Your task to perform on an android device: turn off location history Image 0: 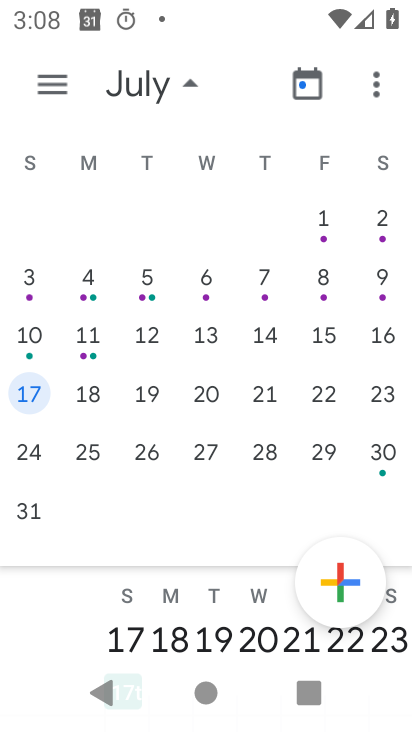
Step 0: press home button
Your task to perform on an android device: turn off location history Image 1: 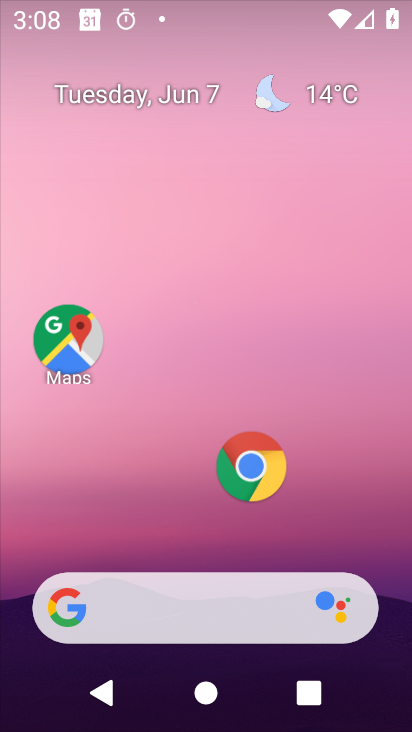
Step 1: drag from (147, 727) to (173, 95)
Your task to perform on an android device: turn off location history Image 2: 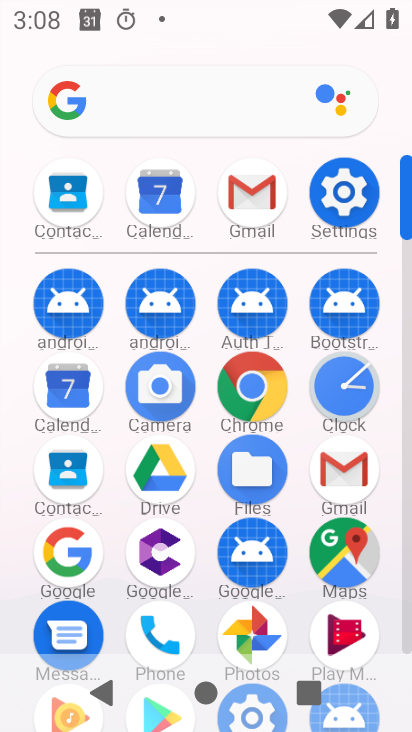
Step 2: click (356, 223)
Your task to perform on an android device: turn off location history Image 3: 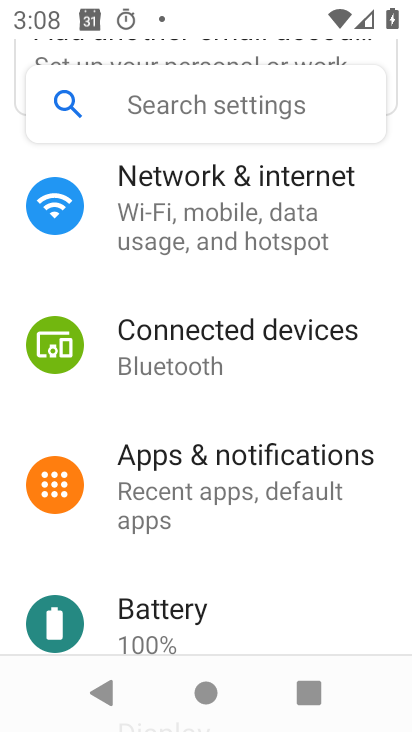
Step 3: drag from (236, 578) to (294, 157)
Your task to perform on an android device: turn off location history Image 4: 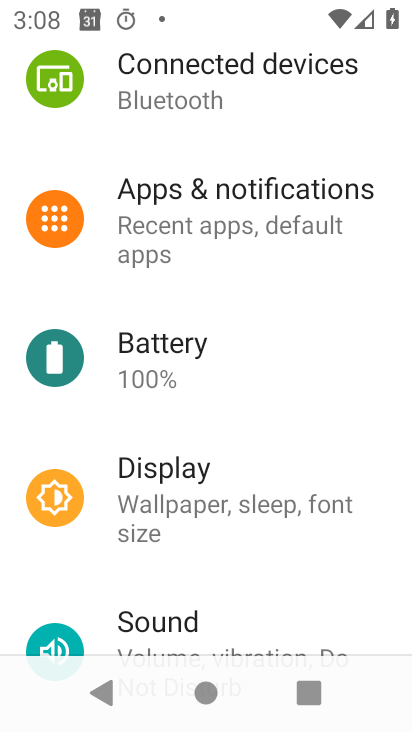
Step 4: drag from (258, 583) to (326, 146)
Your task to perform on an android device: turn off location history Image 5: 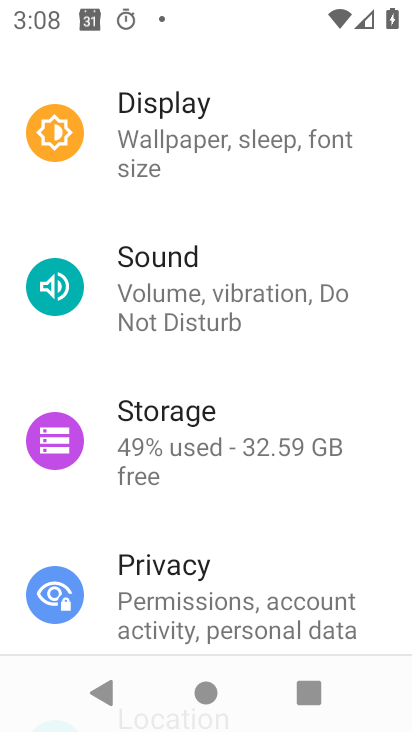
Step 5: drag from (277, 541) to (274, 154)
Your task to perform on an android device: turn off location history Image 6: 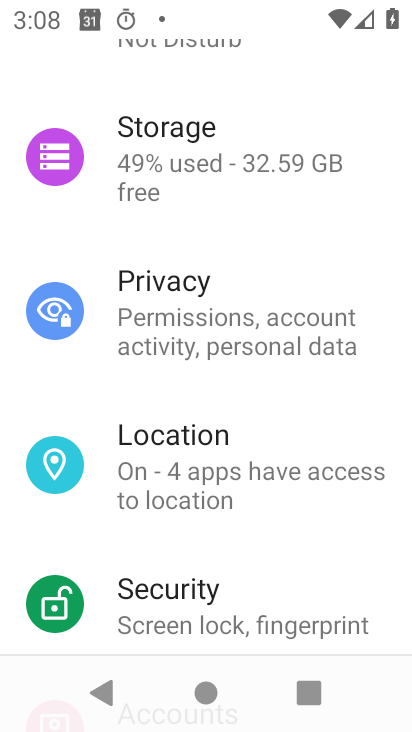
Step 6: click (190, 495)
Your task to perform on an android device: turn off location history Image 7: 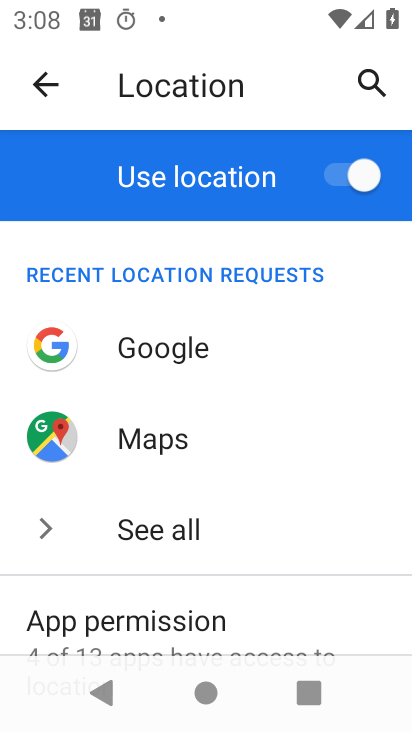
Step 7: drag from (300, 551) to (317, 184)
Your task to perform on an android device: turn off location history Image 8: 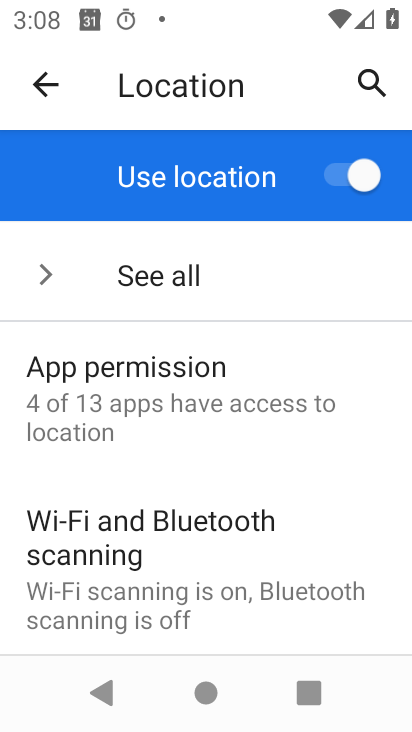
Step 8: drag from (207, 539) to (193, 297)
Your task to perform on an android device: turn off location history Image 9: 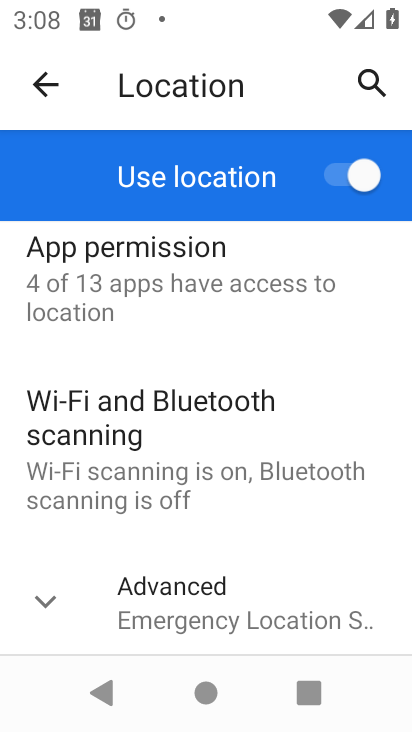
Step 9: click (235, 626)
Your task to perform on an android device: turn off location history Image 10: 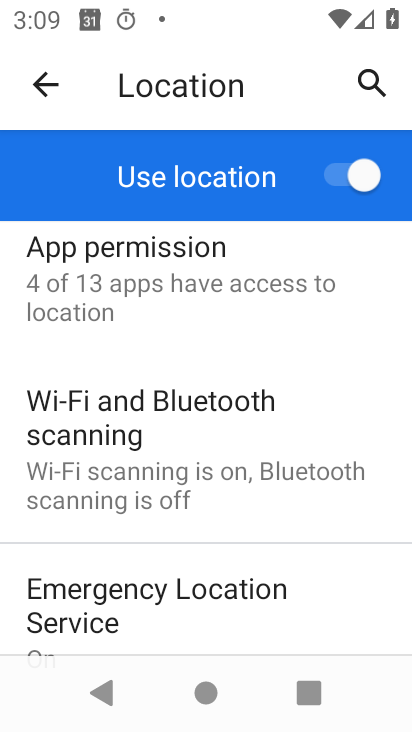
Step 10: drag from (290, 593) to (291, 254)
Your task to perform on an android device: turn off location history Image 11: 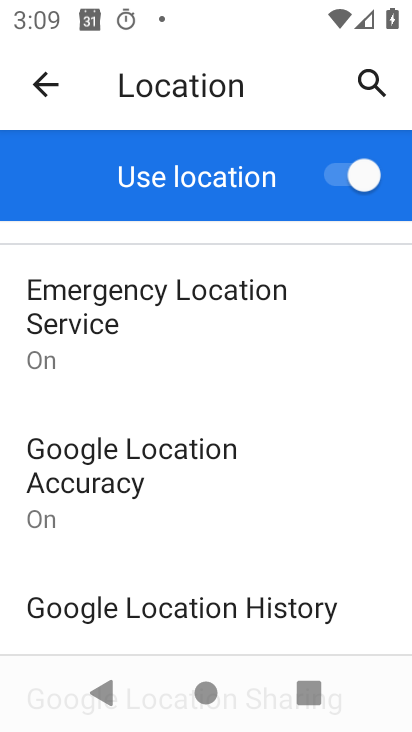
Step 11: drag from (292, 505) to (294, 235)
Your task to perform on an android device: turn off location history Image 12: 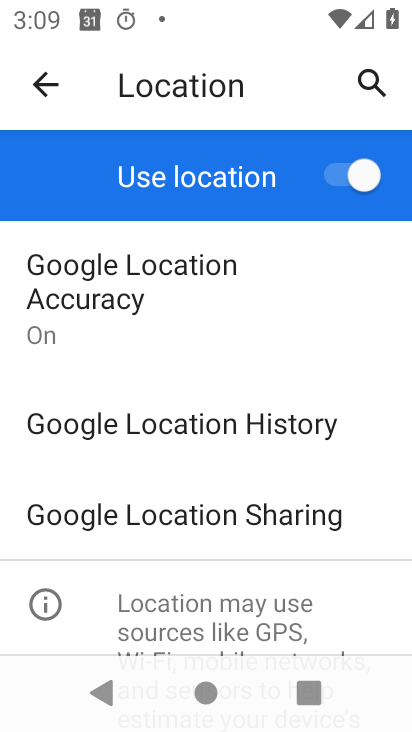
Step 12: click (172, 432)
Your task to perform on an android device: turn off location history Image 13: 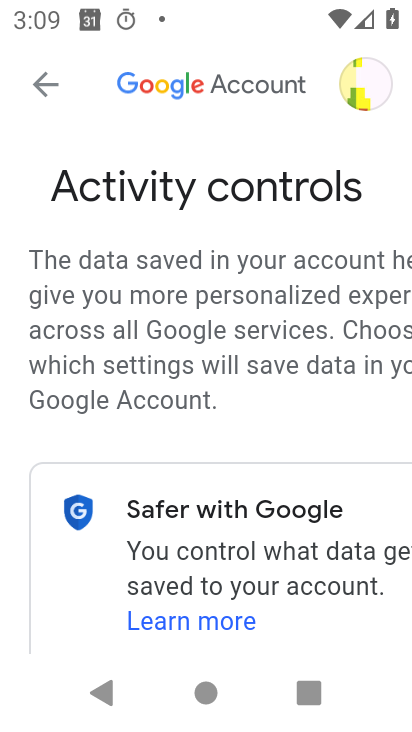
Step 13: drag from (312, 552) to (371, 244)
Your task to perform on an android device: turn off location history Image 14: 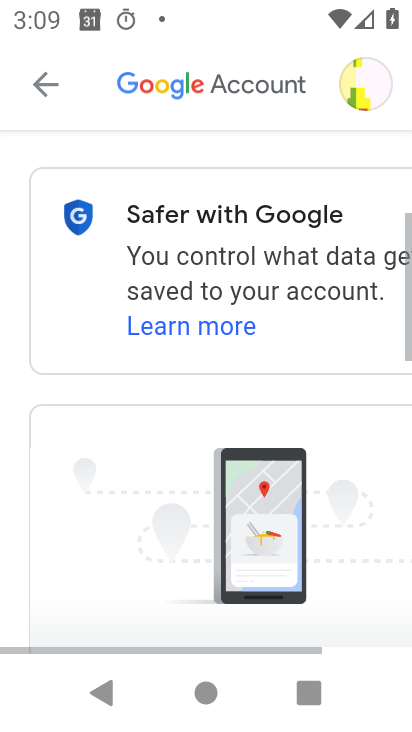
Step 14: drag from (306, 579) to (353, 81)
Your task to perform on an android device: turn off location history Image 15: 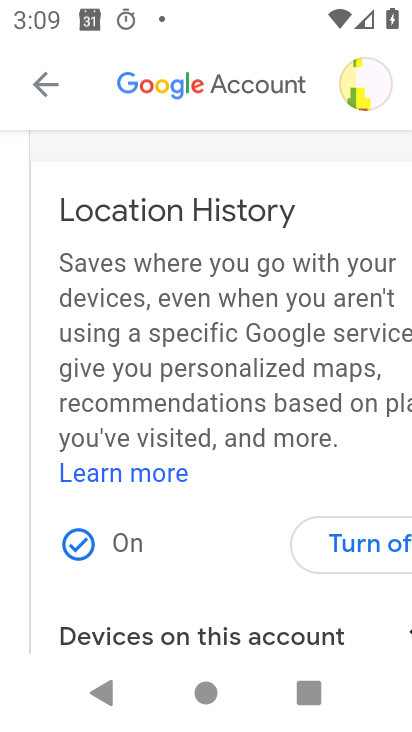
Step 15: click (354, 544)
Your task to perform on an android device: turn off location history Image 16: 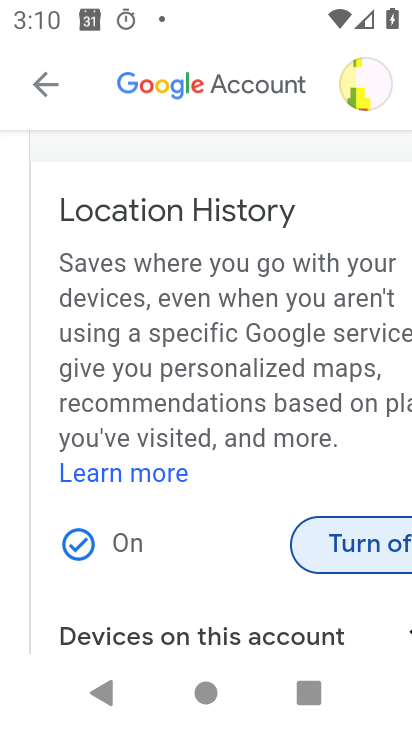
Step 16: click (362, 552)
Your task to perform on an android device: turn off location history Image 17: 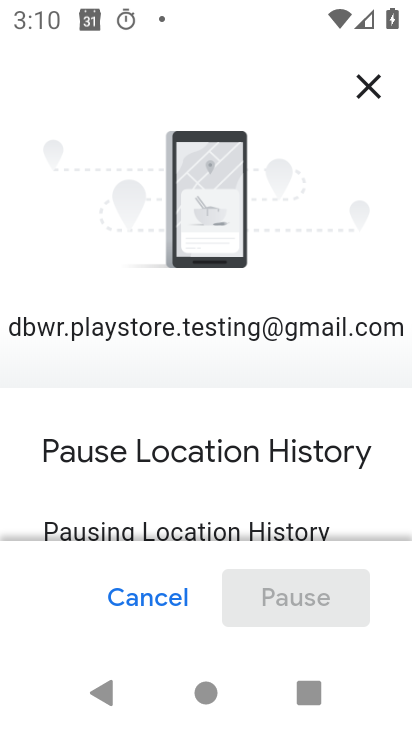
Step 17: drag from (241, 468) to (199, 0)
Your task to perform on an android device: turn off location history Image 18: 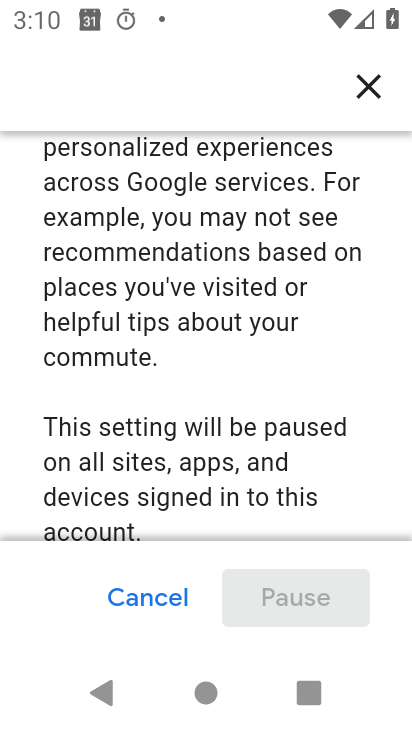
Step 18: drag from (346, 383) to (325, 0)
Your task to perform on an android device: turn off location history Image 19: 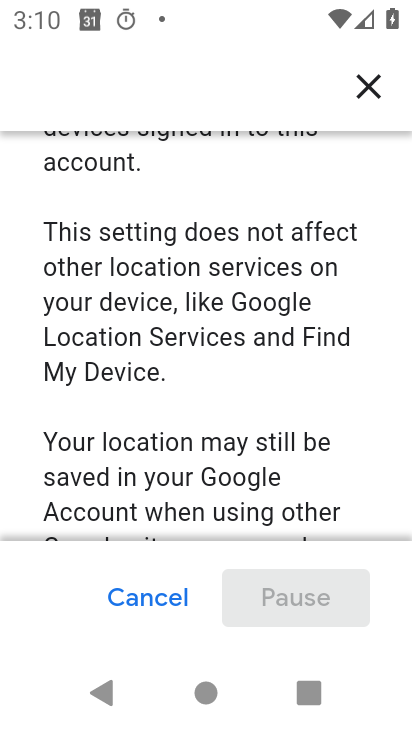
Step 19: drag from (344, 146) to (370, 1)
Your task to perform on an android device: turn off location history Image 20: 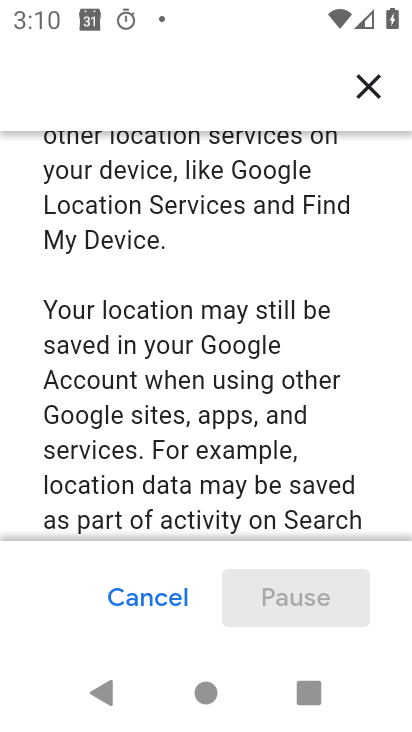
Step 20: drag from (330, 364) to (343, 35)
Your task to perform on an android device: turn off location history Image 21: 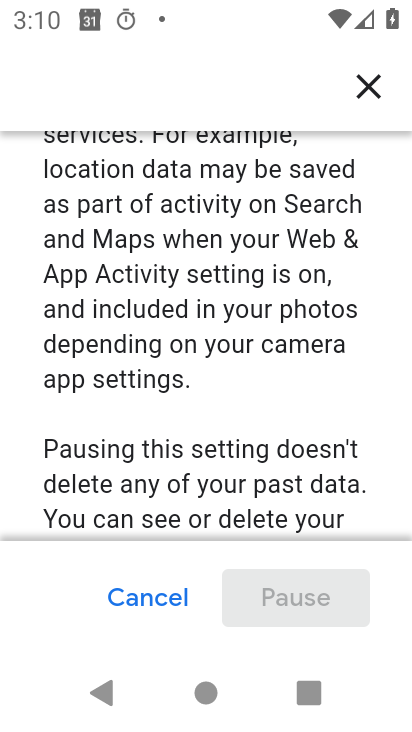
Step 21: drag from (289, 417) to (286, 28)
Your task to perform on an android device: turn off location history Image 22: 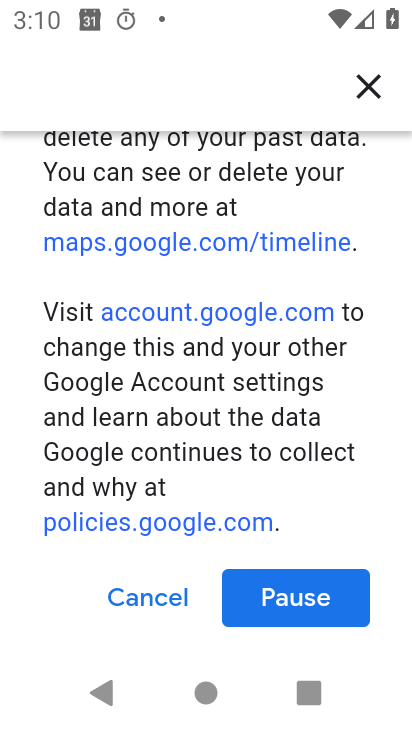
Step 22: click (303, 606)
Your task to perform on an android device: turn off location history Image 23: 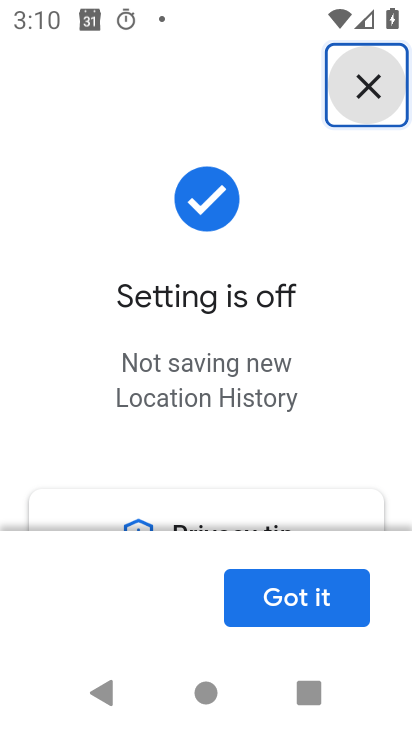
Step 23: click (310, 604)
Your task to perform on an android device: turn off location history Image 24: 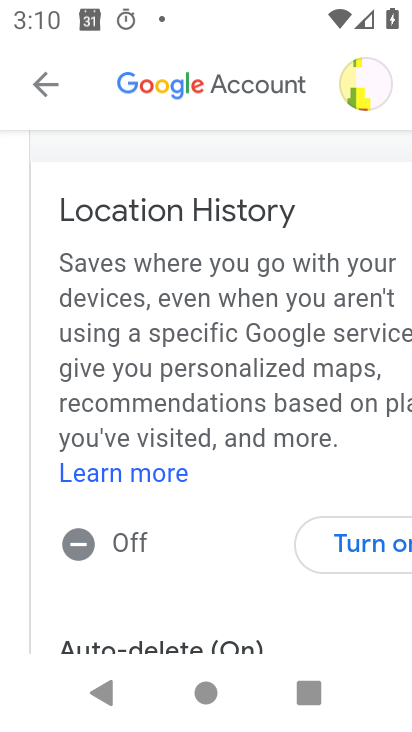
Step 24: task complete